Your task to perform on an android device: visit the assistant section in the google photos Image 0: 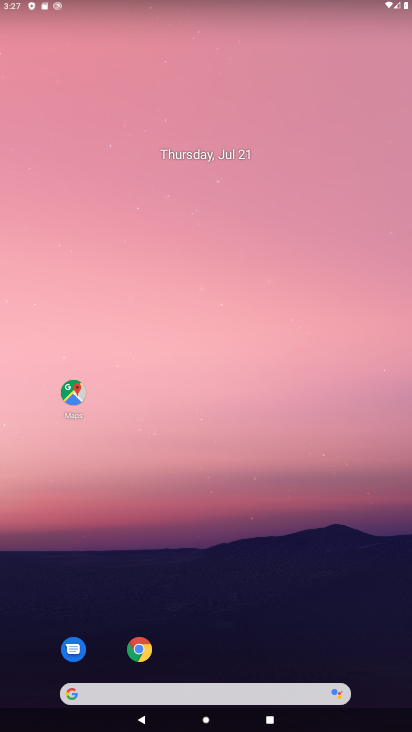
Step 0: drag from (191, 692) to (244, 197)
Your task to perform on an android device: visit the assistant section in the google photos Image 1: 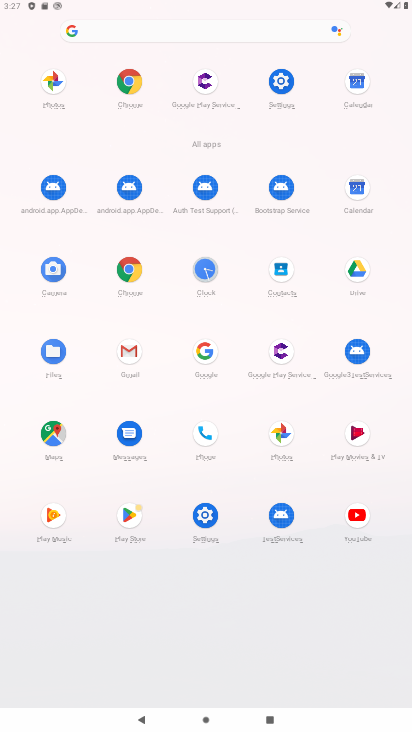
Step 1: click (283, 432)
Your task to perform on an android device: visit the assistant section in the google photos Image 2: 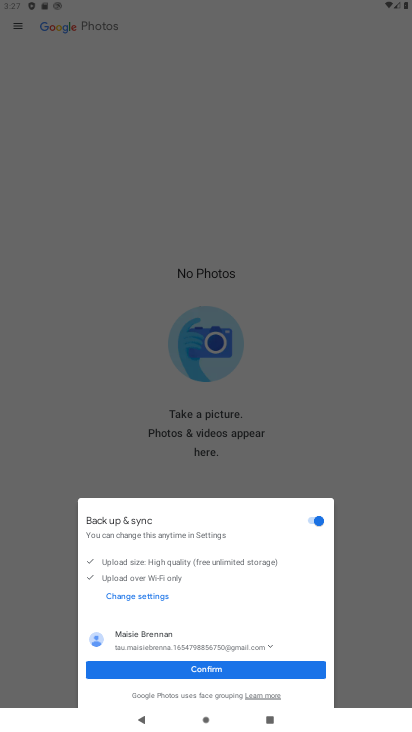
Step 2: click (216, 670)
Your task to perform on an android device: visit the assistant section in the google photos Image 3: 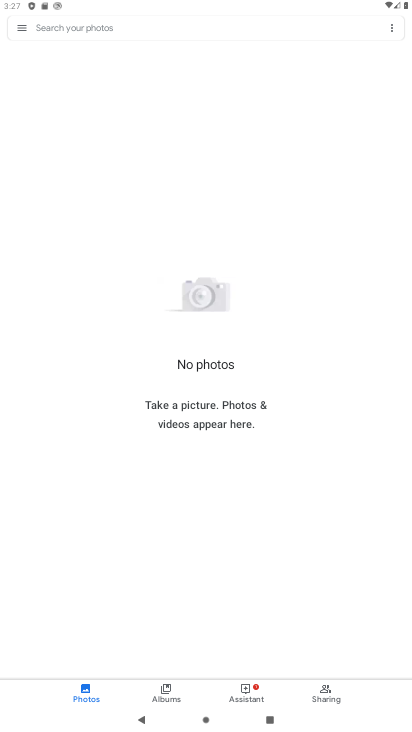
Step 3: click (241, 693)
Your task to perform on an android device: visit the assistant section in the google photos Image 4: 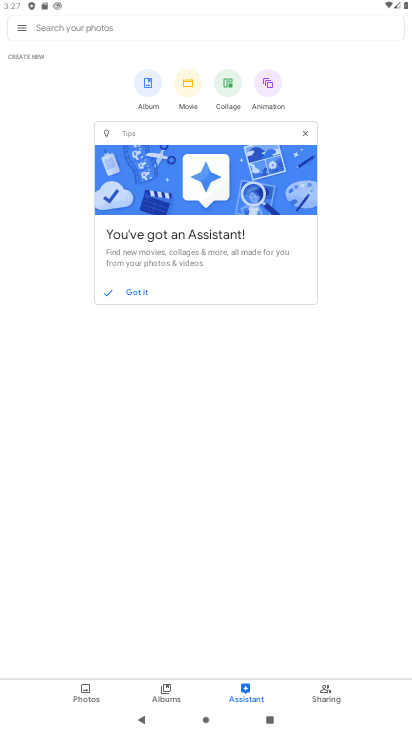
Step 4: task complete